Your task to perform on an android device: turn off improve location accuracy Image 0: 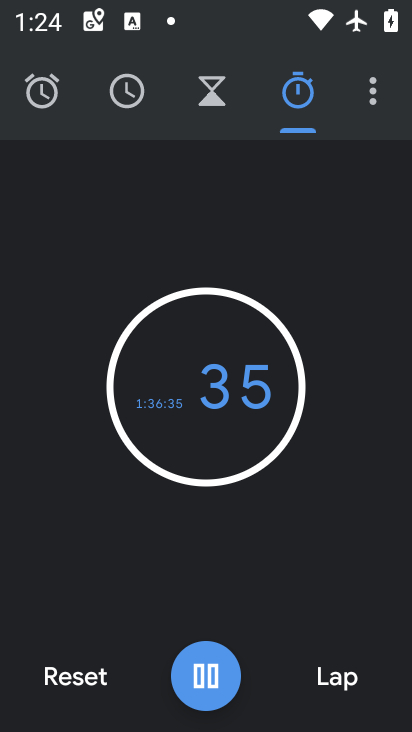
Step 0: press home button
Your task to perform on an android device: turn off improve location accuracy Image 1: 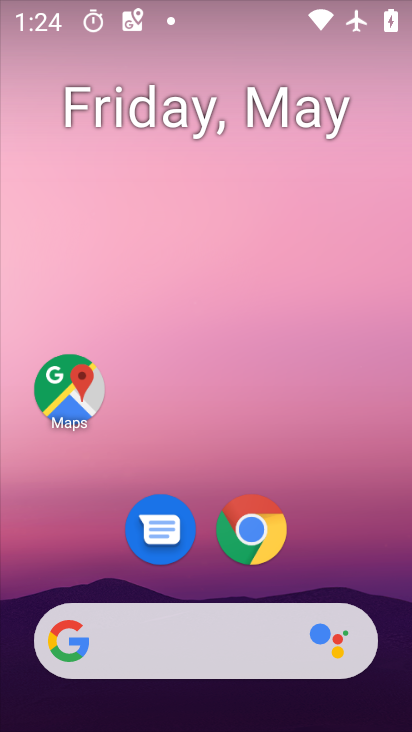
Step 1: drag from (205, 663) to (146, 327)
Your task to perform on an android device: turn off improve location accuracy Image 2: 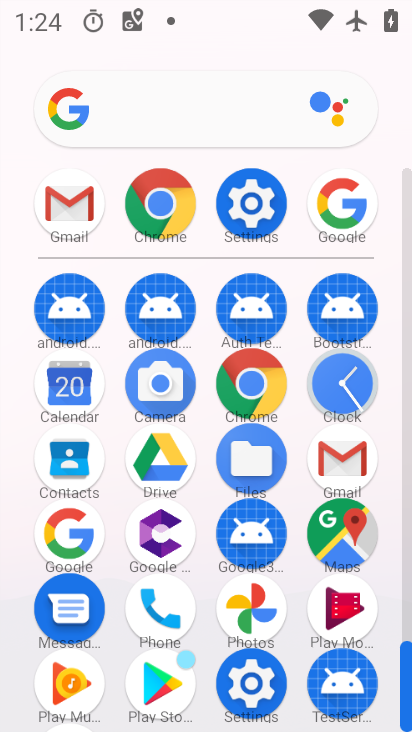
Step 2: click (257, 223)
Your task to perform on an android device: turn off improve location accuracy Image 3: 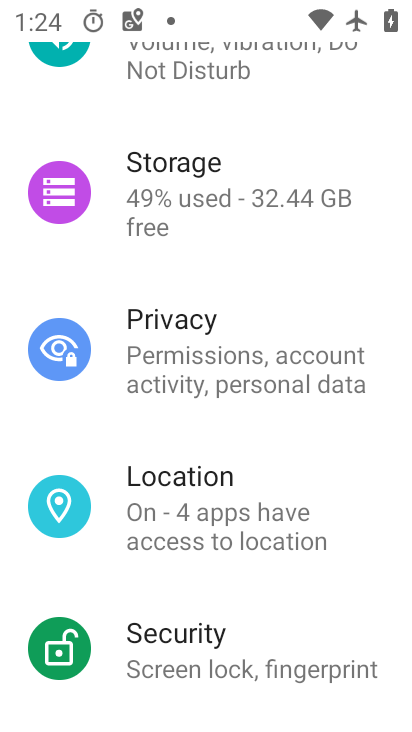
Step 3: drag from (239, 474) to (198, 315)
Your task to perform on an android device: turn off improve location accuracy Image 4: 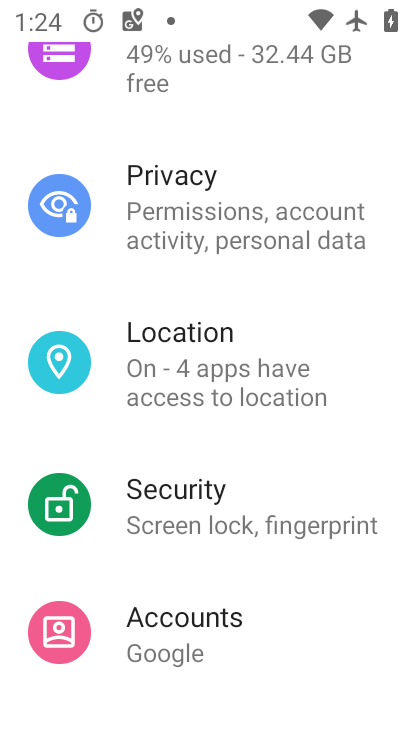
Step 4: click (197, 370)
Your task to perform on an android device: turn off improve location accuracy Image 5: 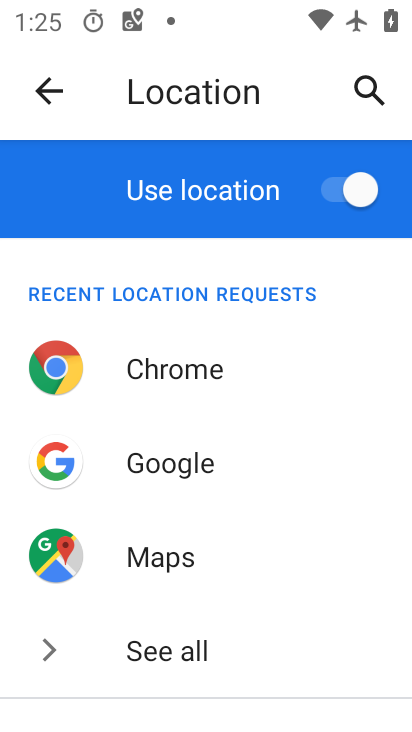
Step 5: drag from (262, 532) to (209, 204)
Your task to perform on an android device: turn off improve location accuracy Image 6: 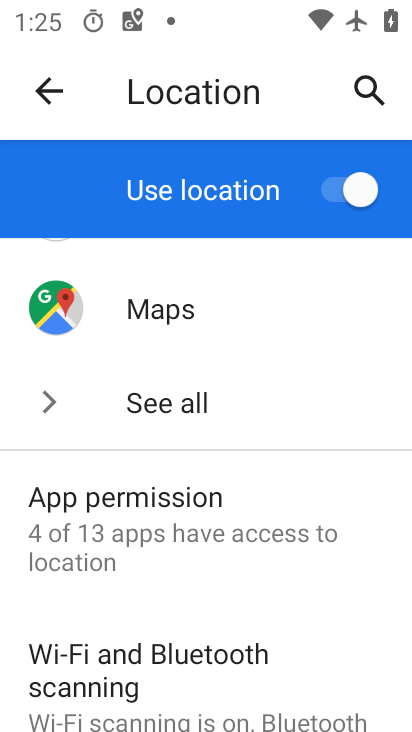
Step 6: drag from (254, 557) to (133, 128)
Your task to perform on an android device: turn off improve location accuracy Image 7: 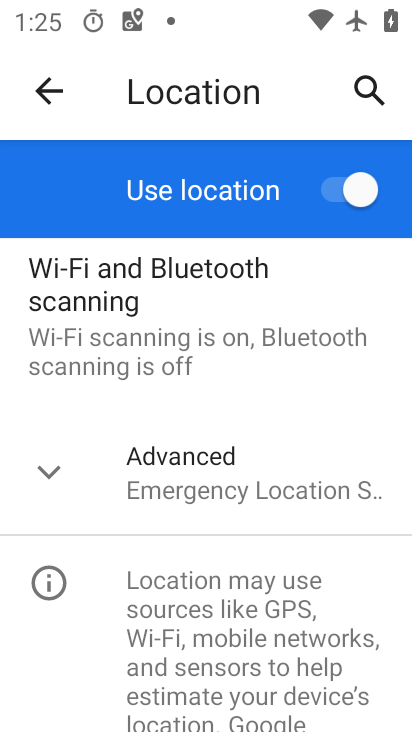
Step 7: click (200, 498)
Your task to perform on an android device: turn off improve location accuracy Image 8: 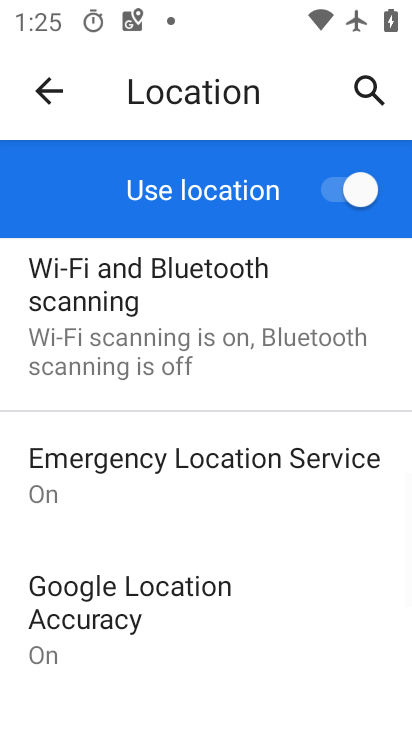
Step 8: drag from (231, 660) to (179, 464)
Your task to perform on an android device: turn off improve location accuracy Image 9: 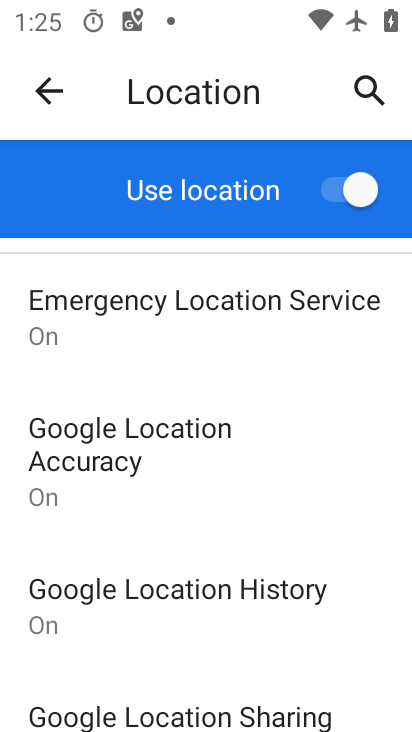
Step 9: click (178, 463)
Your task to perform on an android device: turn off improve location accuracy Image 10: 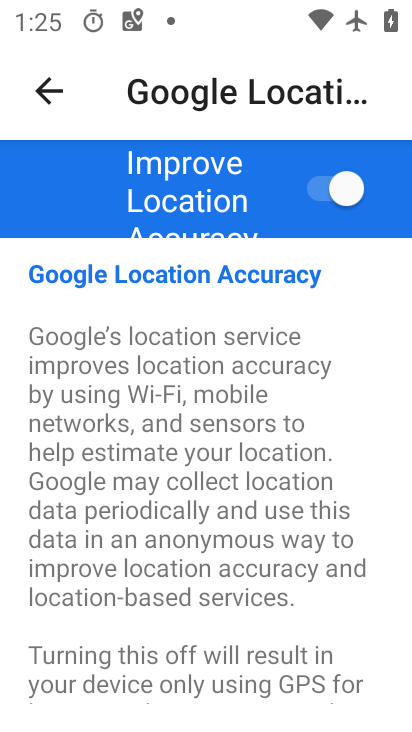
Step 10: click (310, 187)
Your task to perform on an android device: turn off improve location accuracy Image 11: 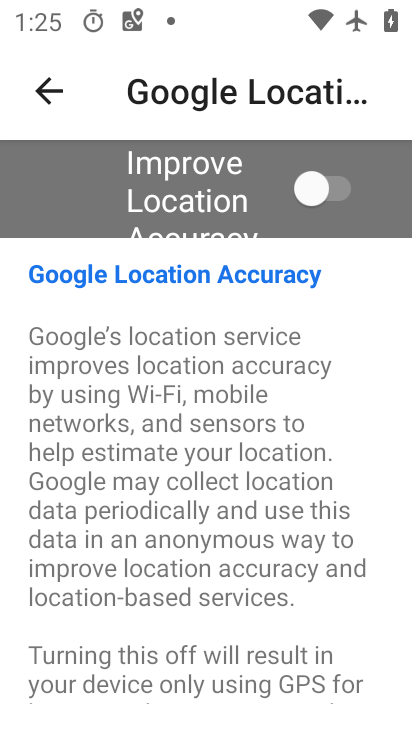
Step 11: task complete